Your task to perform on an android device: Open calendar and show me the third week of next month Image 0: 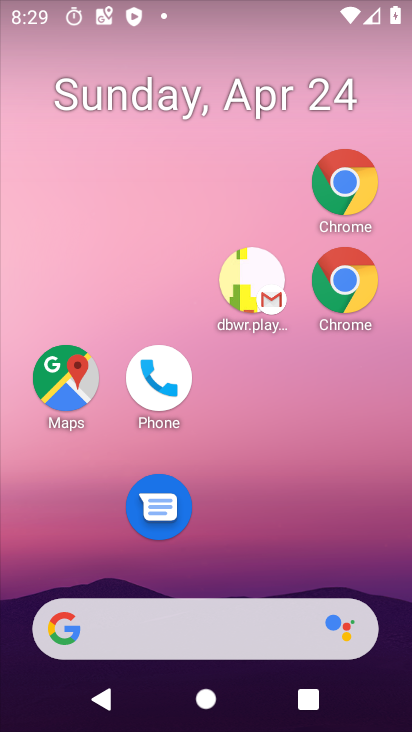
Step 0: drag from (249, 679) to (128, 62)
Your task to perform on an android device: Open calendar and show me the third week of next month Image 1: 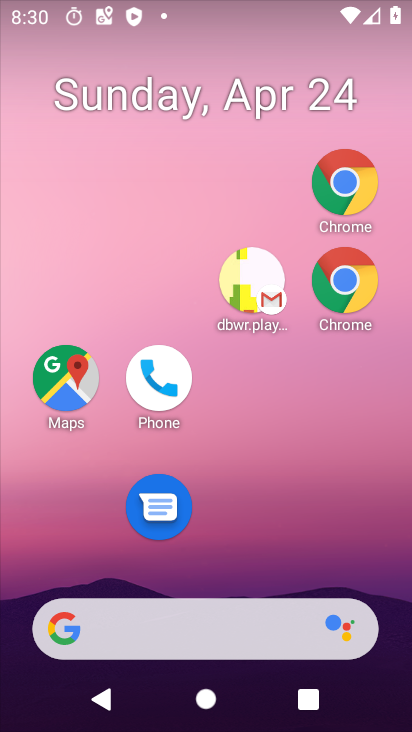
Step 1: click (239, 175)
Your task to perform on an android device: Open calendar and show me the third week of next month Image 2: 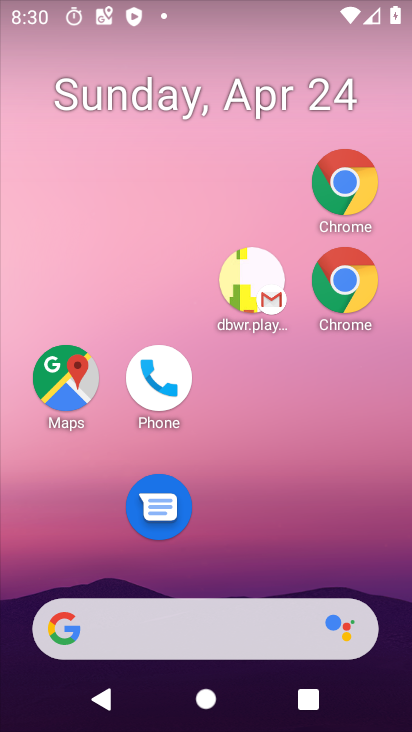
Step 2: drag from (277, 663) to (192, 50)
Your task to perform on an android device: Open calendar and show me the third week of next month Image 3: 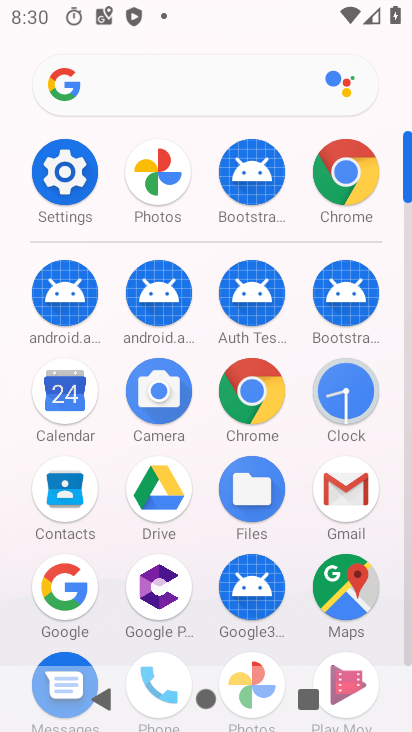
Step 3: click (62, 395)
Your task to perform on an android device: Open calendar and show me the third week of next month Image 4: 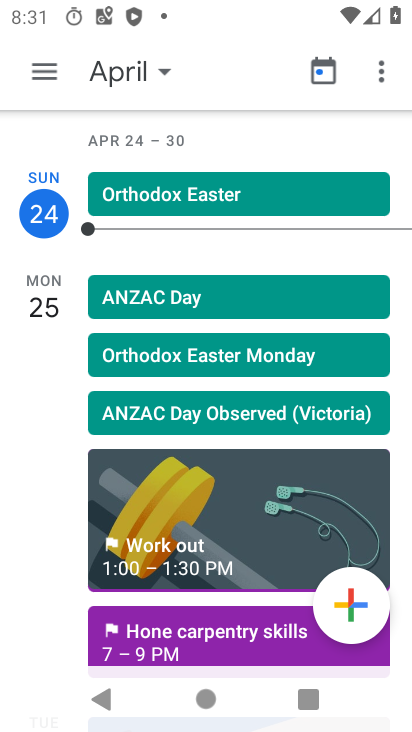
Step 4: click (166, 69)
Your task to perform on an android device: Open calendar and show me the third week of next month Image 5: 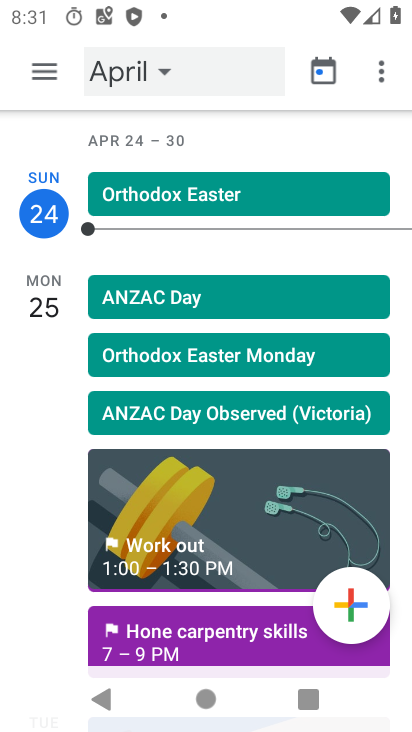
Step 5: click (168, 70)
Your task to perform on an android device: Open calendar and show me the third week of next month Image 6: 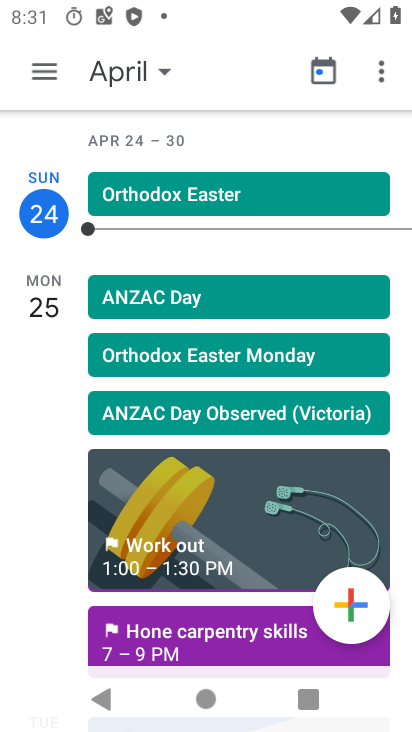
Step 6: click (166, 70)
Your task to perform on an android device: Open calendar and show me the third week of next month Image 7: 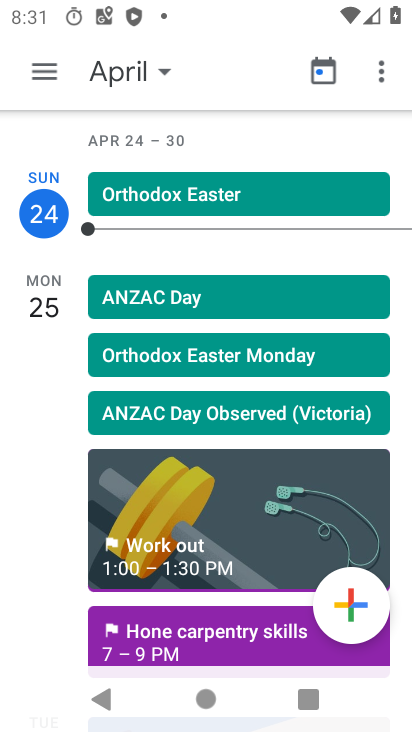
Step 7: click (166, 70)
Your task to perform on an android device: Open calendar and show me the third week of next month Image 8: 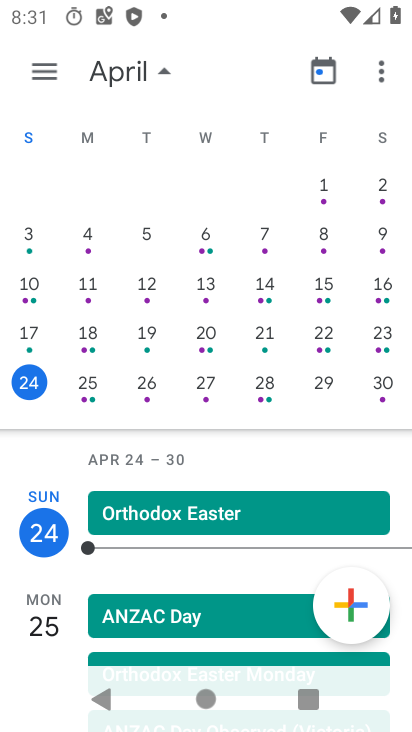
Step 8: drag from (211, 335) to (0, 313)
Your task to perform on an android device: Open calendar and show me the third week of next month Image 9: 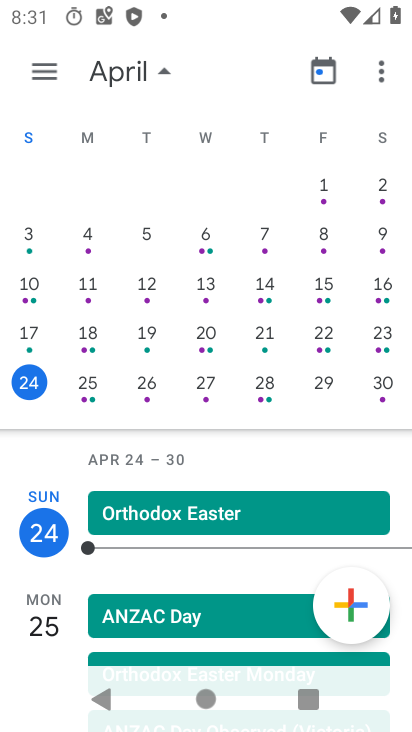
Step 9: drag from (201, 335) to (72, 319)
Your task to perform on an android device: Open calendar and show me the third week of next month Image 10: 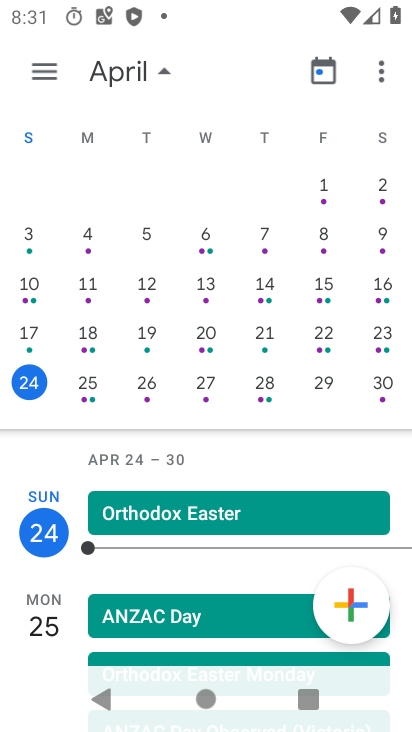
Step 10: drag from (55, 331) to (6, 307)
Your task to perform on an android device: Open calendar and show me the third week of next month Image 11: 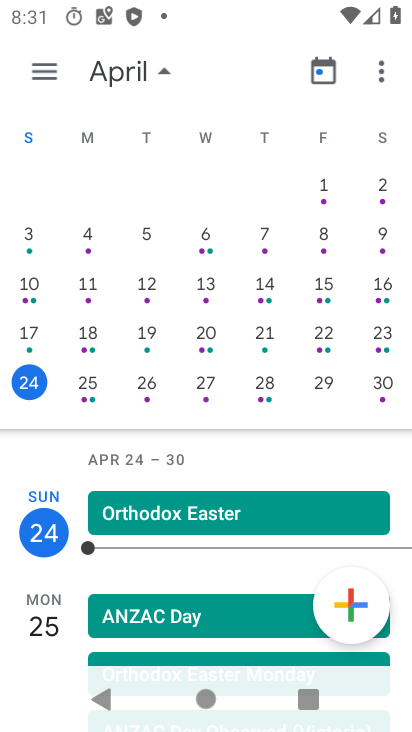
Step 11: drag from (215, 332) to (3, 258)
Your task to perform on an android device: Open calendar and show me the third week of next month Image 12: 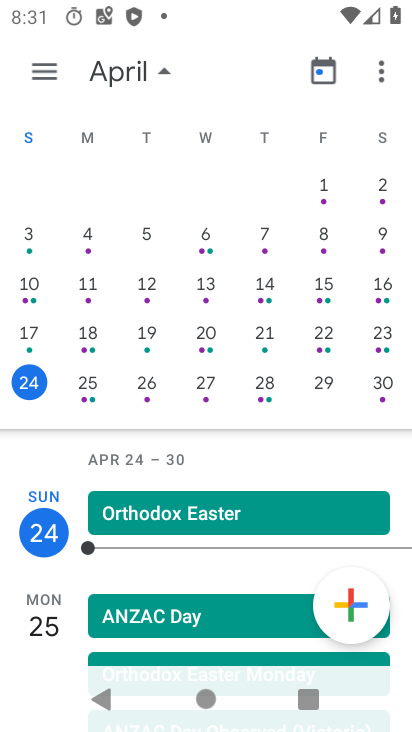
Step 12: drag from (94, 346) to (20, 348)
Your task to perform on an android device: Open calendar and show me the third week of next month Image 13: 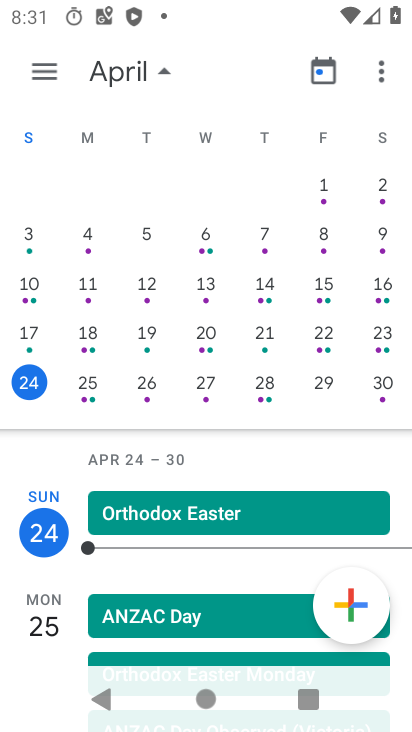
Step 13: drag from (129, 328) to (26, 383)
Your task to perform on an android device: Open calendar and show me the third week of next month Image 14: 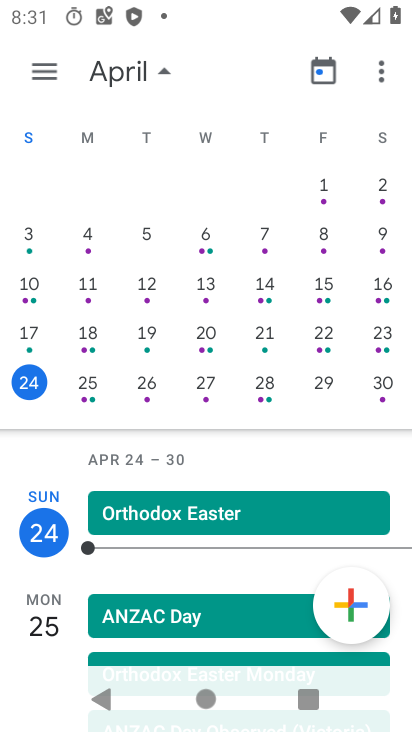
Step 14: drag from (172, 338) to (0, 328)
Your task to perform on an android device: Open calendar and show me the third week of next month Image 15: 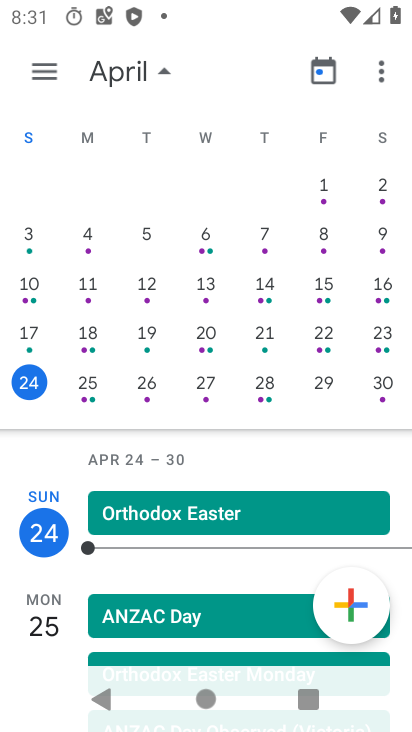
Step 15: drag from (8, 333) to (42, 357)
Your task to perform on an android device: Open calendar and show me the third week of next month Image 16: 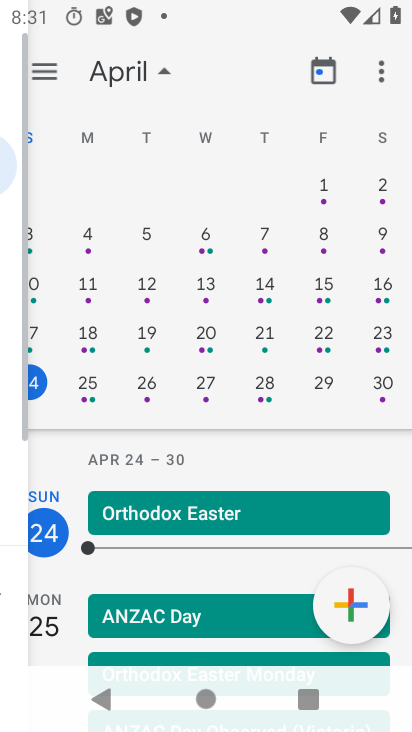
Step 16: drag from (236, 317) to (33, 299)
Your task to perform on an android device: Open calendar and show me the third week of next month Image 17: 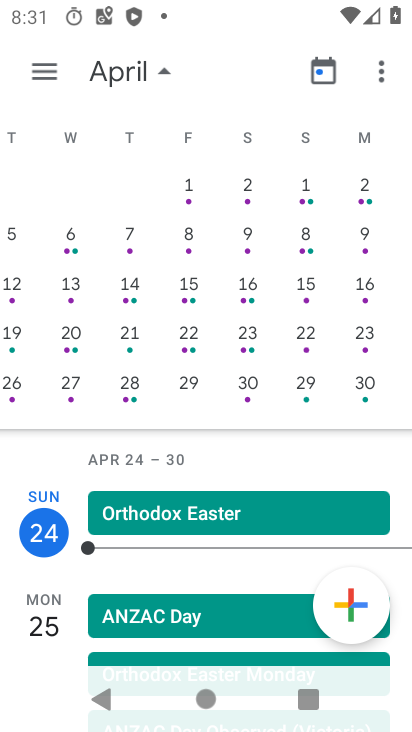
Step 17: click (18, 322)
Your task to perform on an android device: Open calendar and show me the third week of next month Image 18: 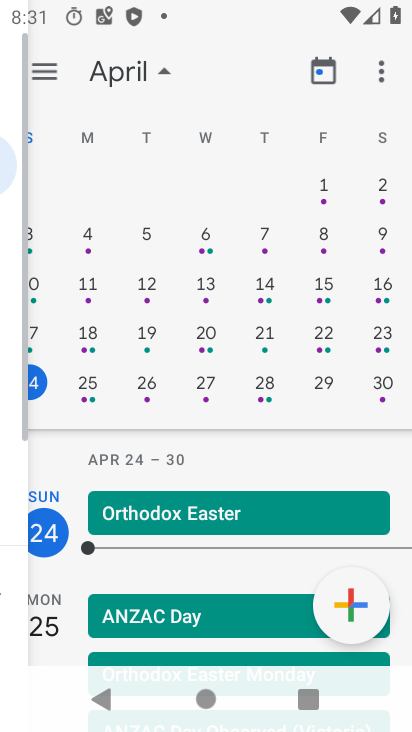
Step 18: drag from (217, 313) to (103, 299)
Your task to perform on an android device: Open calendar and show me the third week of next month Image 19: 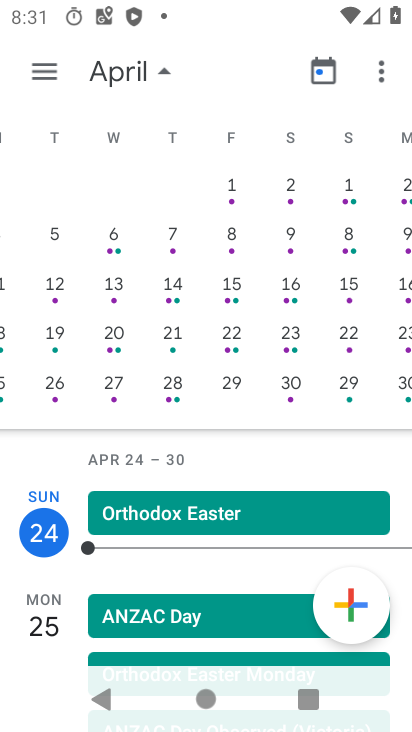
Step 19: drag from (325, 304) to (35, 295)
Your task to perform on an android device: Open calendar and show me the third week of next month Image 20: 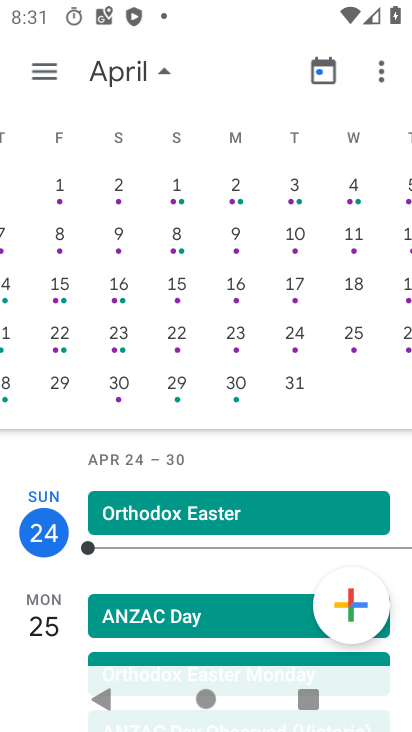
Step 20: drag from (184, 288) to (40, 326)
Your task to perform on an android device: Open calendar and show me the third week of next month Image 21: 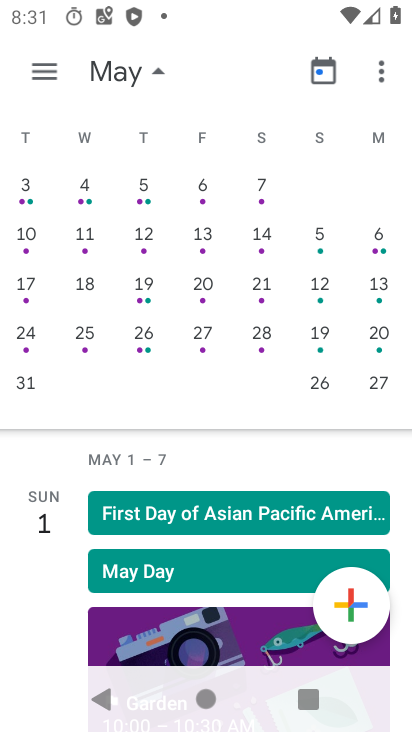
Step 21: drag from (93, 325) to (49, 320)
Your task to perform on an android device: Open calendar and show me the third week of next month Image 22: 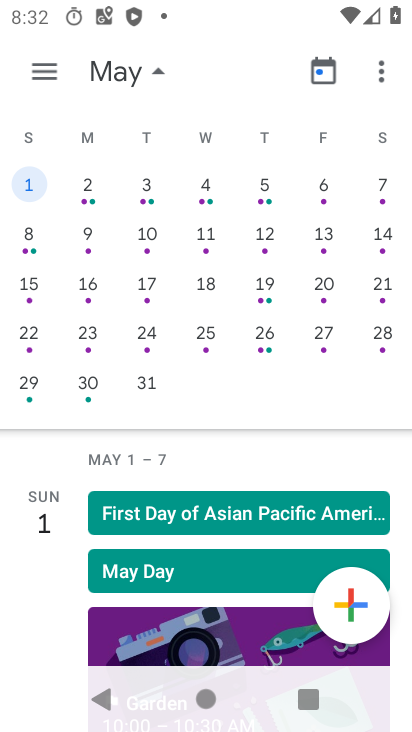
Step 22: click (89, 277)
Your task to perform on an android device: Open calendar and show me the third week of next month Image 23: 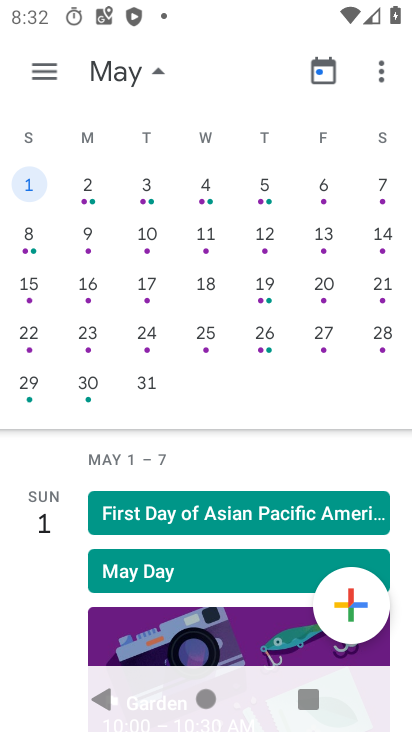
Step 23: click (89, 277)
Your task to perform on an android device: Open calendar and show me the third week of next month Image 24: 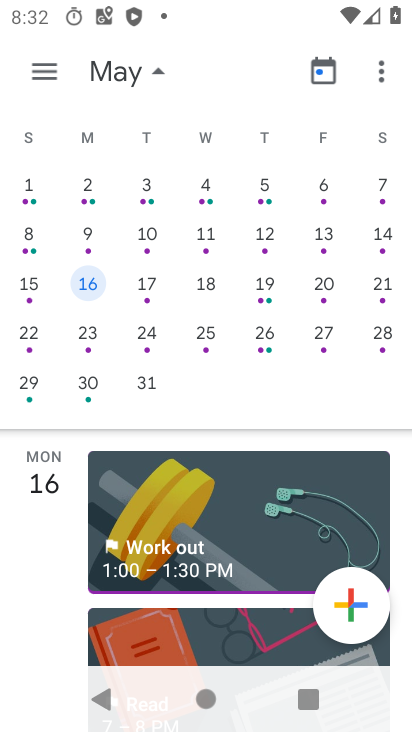
Step 24: click (93, 276)
Your task to perform on an android device: Open calendar and show me the third week of next month Image 25: 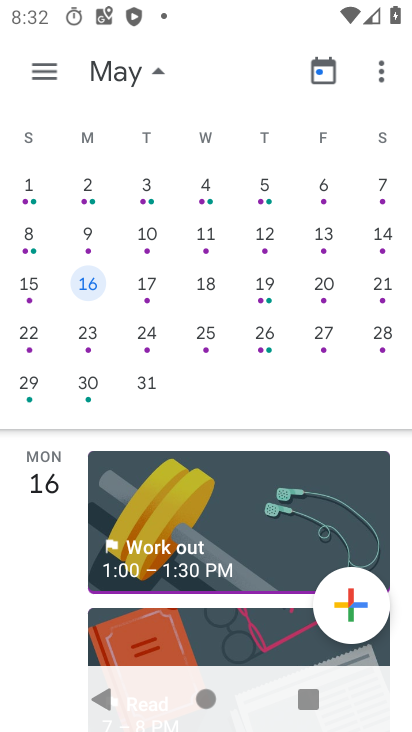
Step 25: task complete